Your task to perform on an android device: What's the weather today? Image 0: 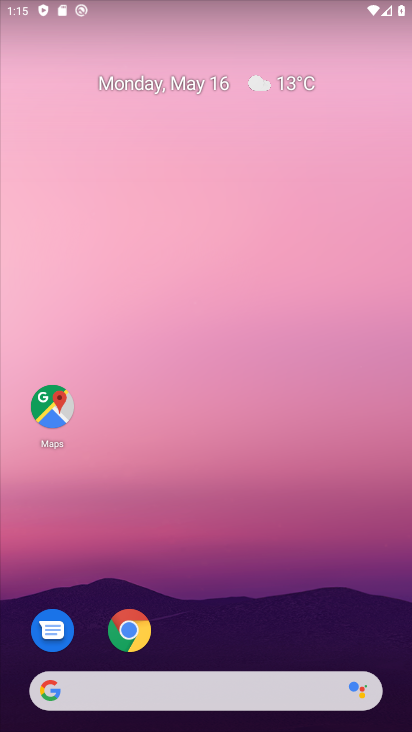
Step 0: click (176, 681)
Your task to perform on an android device: What's the weather today? Image 1: 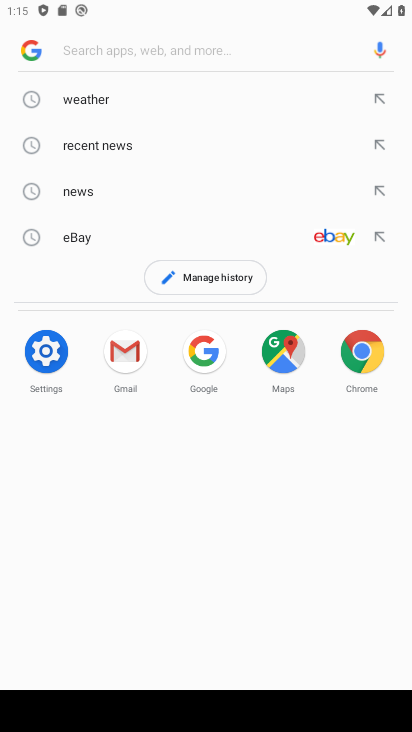
Step 1: click (105, 107)
Your task to perform on an android device: What's the weather today? Image 2: 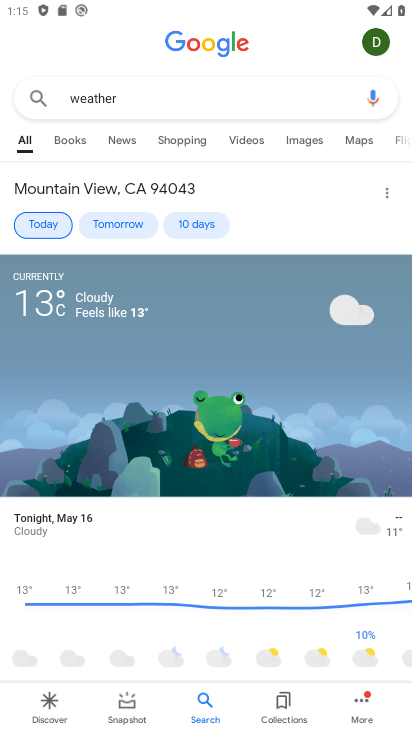
Step 2: task complete